Your task to perform on an android device: Open Google Image 0: 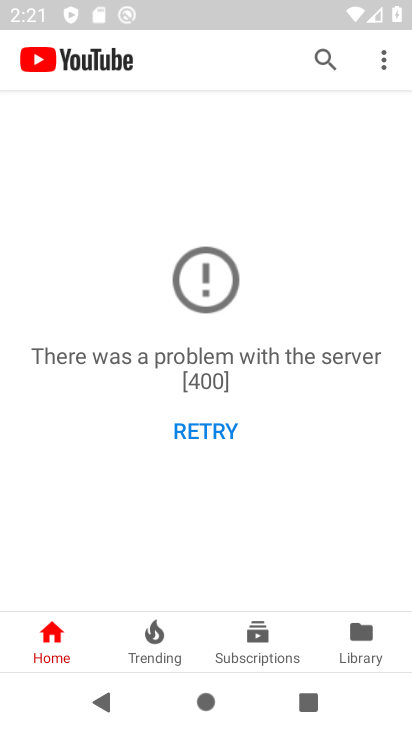
Step 0: press home button
Your task to perform on an android device: Open Google Image 1: 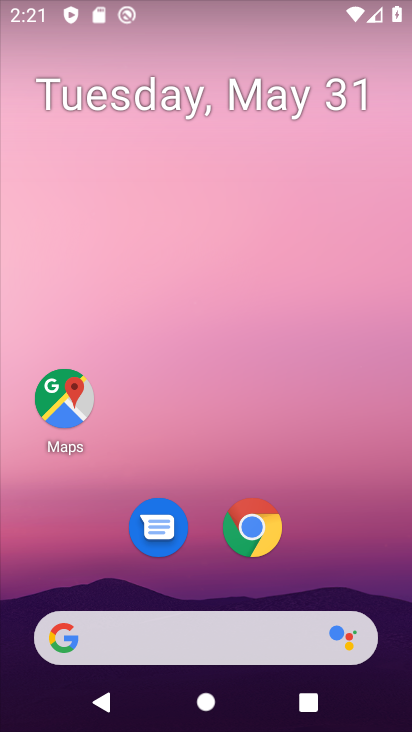
Step 1: drag from (104, 584) to (167, 136)
Your task to perform on an android device: Open Google Image 2: 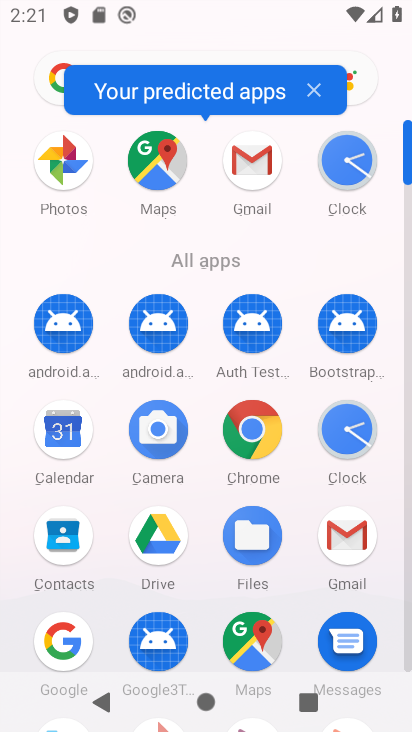
Step 2: click (63, 636)
Your task to perform on an android device: Open Google Image 3: 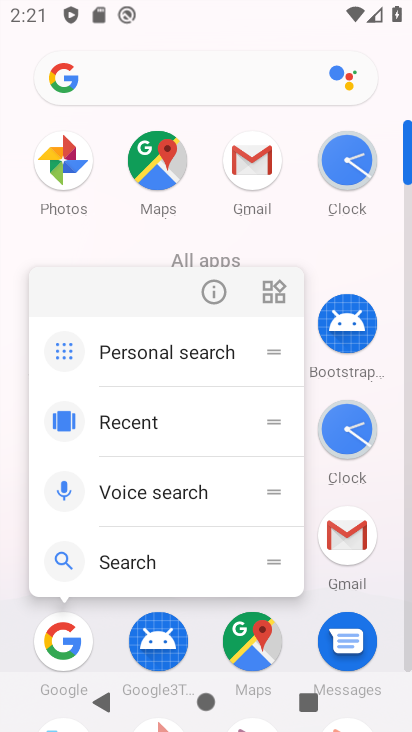
Step 3: click (63, 636)
Your task to perform on an android device: Open Google Image 4: 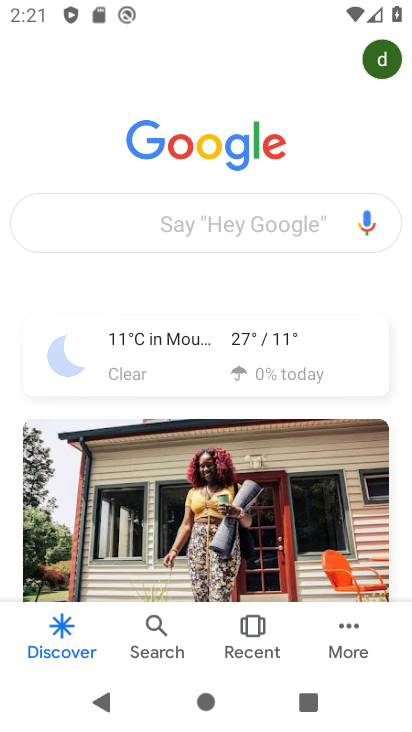
Step 4: task complete